Your task to perform on an android device: turn on translation in the chrome app Image 0: 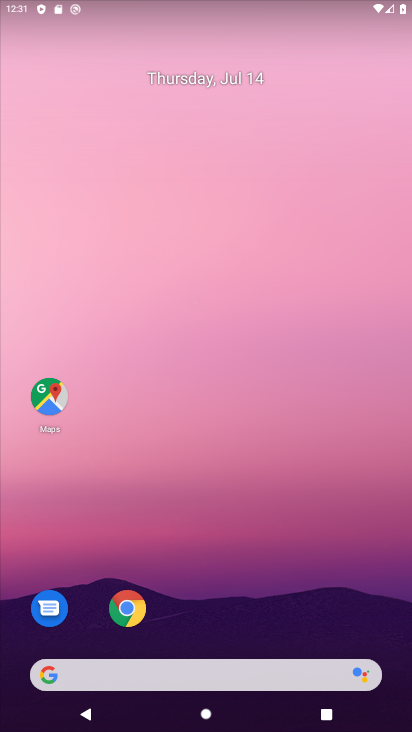
Step 0: drag from (190, 258) to (201, 150)
Your task to perform on an android device: turn on translation in the chrome app Image 1: 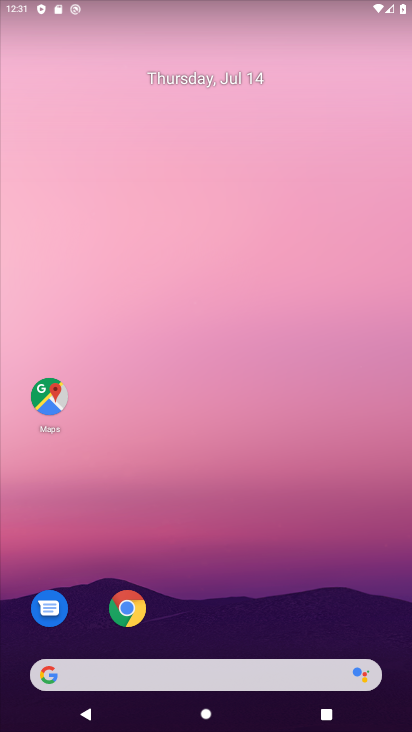
Step 1: drag from (199, 608) to (330, 22)
Your task to perform on an android device: turn on translation in the chrome app Image 2: 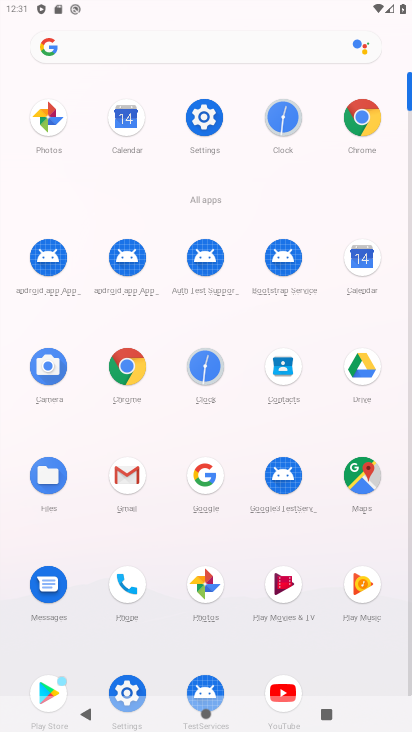
Step 2: click (131, 360)
Your task to perform on an android device: turn on translation in the chrome app Image 3: 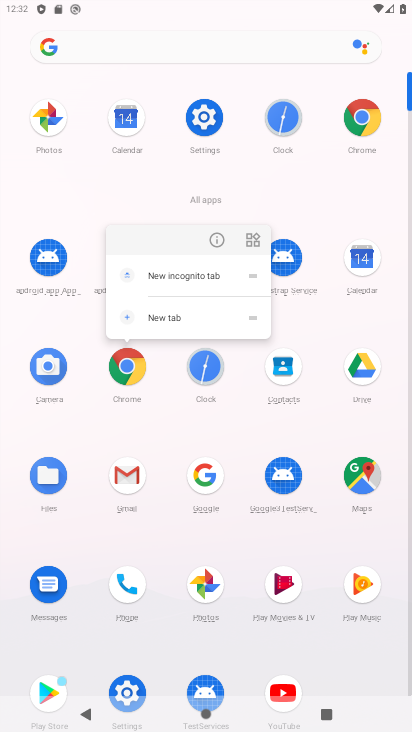
Step 3: click (223, 234)
Your task to perform on an android device: turn on translation in the chrome app Image 4: 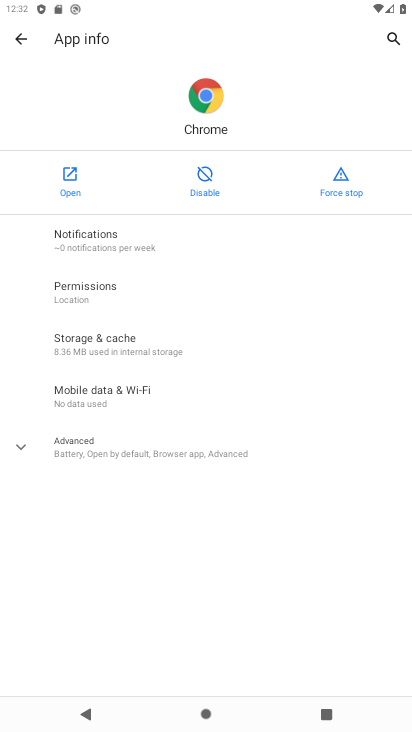
Step 4: click (76, 179)
Your task to perform on an android device: turn on translation in the chrome app Image 5: 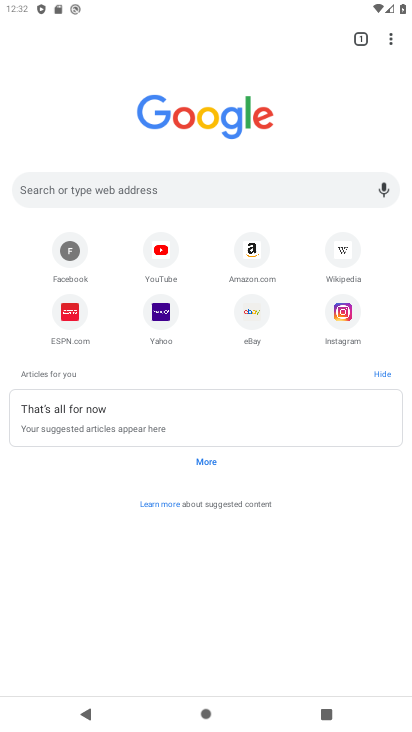
Step 5: drag from (211, 358) to (224, 205)
Your task to perform on an android device: turn on translation in the chrome app Image 6: 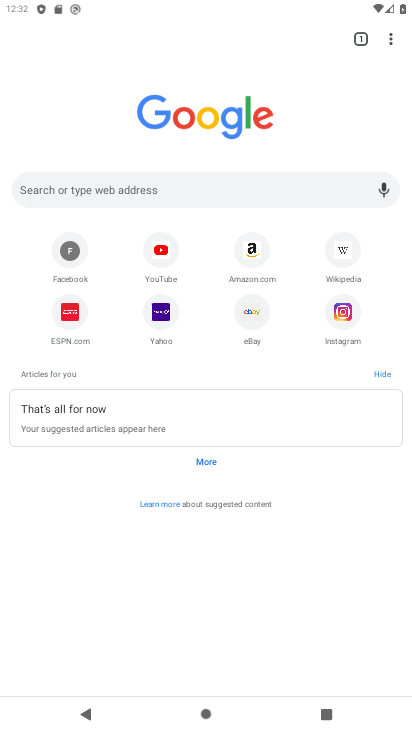
Step 6: drag from (194, 234) to (209, 393)
Your task to perform on an android device: turn on translation in the chrome app Image 7: 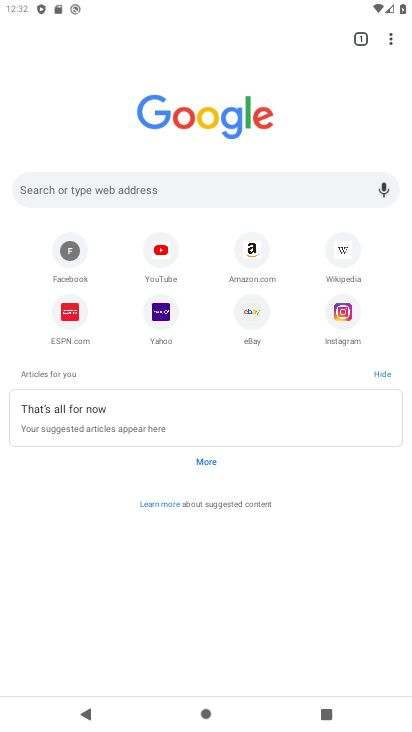
Step 7: drag from (211, 221) to (172, 455)
Your task to perform on an android device: turn on translation in the chrome app Image 8: 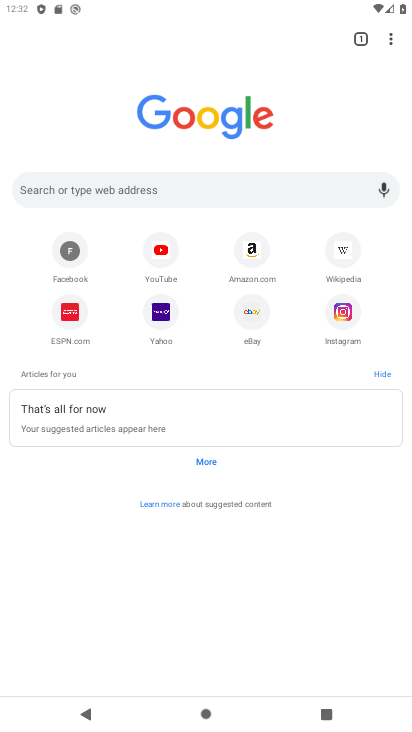
Step 8: drag from (211, 229) to (260, 659)
Your task to perform on an android device: turn on translation in the chrome app Image 9: 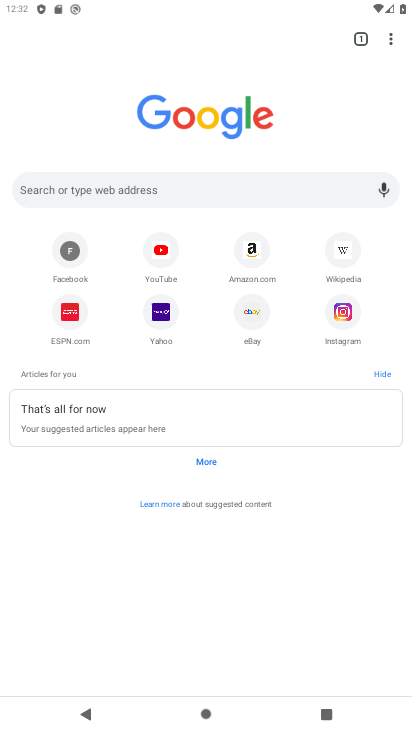
Step 9: click (393, 37)
Your task to perform on an android device: turn on translation in the chrome app Image 10: 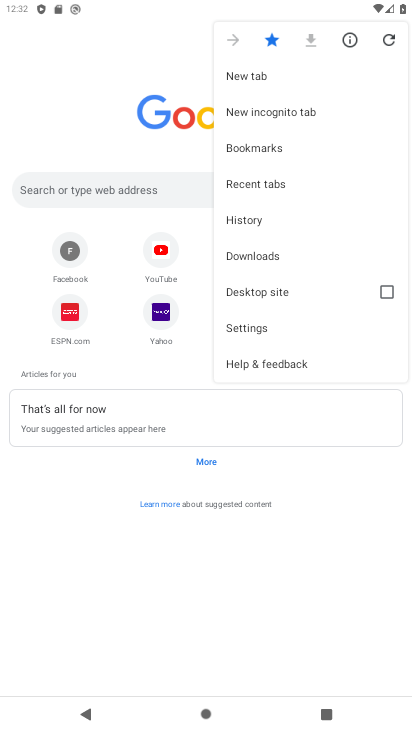
Step 10: click (252, 326)
Your task to perform on an android device: turn on translation in the chrome app Image 11: 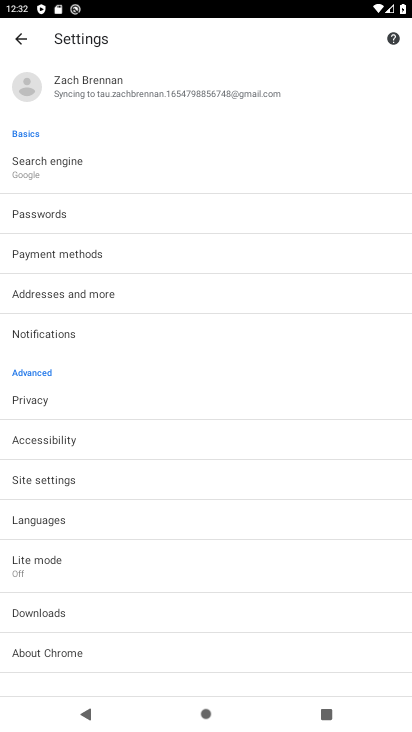
Step 11: drag from (203, 570) to (259, 143)
Your task to perform on an android device: turn on translation in the chrome app Image 12: 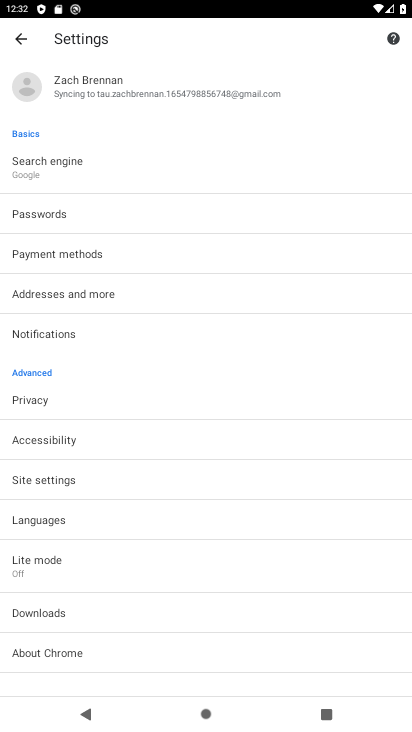
Step 12: drag from (131, 627) to (171, 379)
Your task to perform on an android device: turn on translation in the chrome app Image 13: 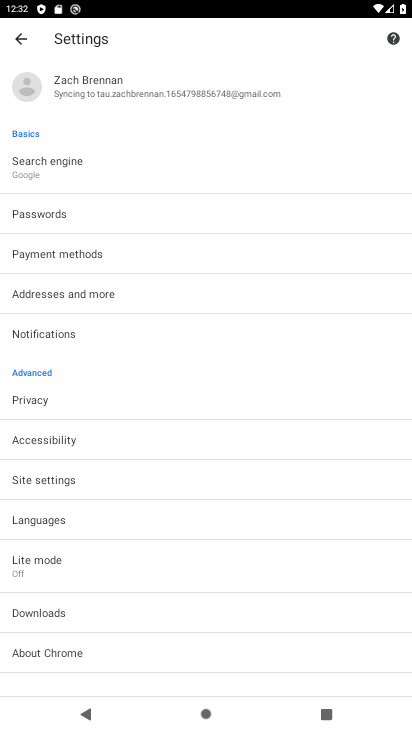
Step 13: click (97, 471)
Your task to perform on an android device: turn on translation in the chrome app Image 14: 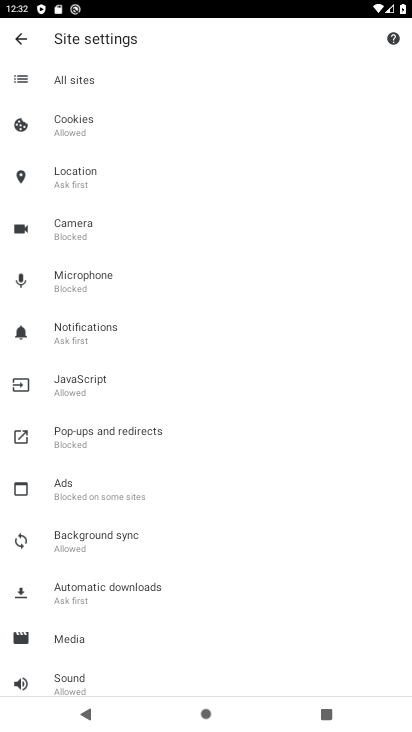
Step 14: click (13, 36)
Your task to perform on an android device: turn on translation in the chrome app Image 15: 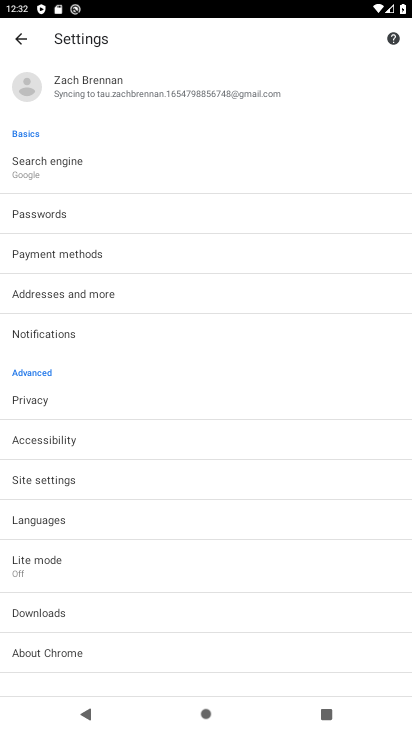
Step 15: drag from (209, 494) to (225, 222)
Your task to perform on an android device: turn on translation in the chrome app Image 16: 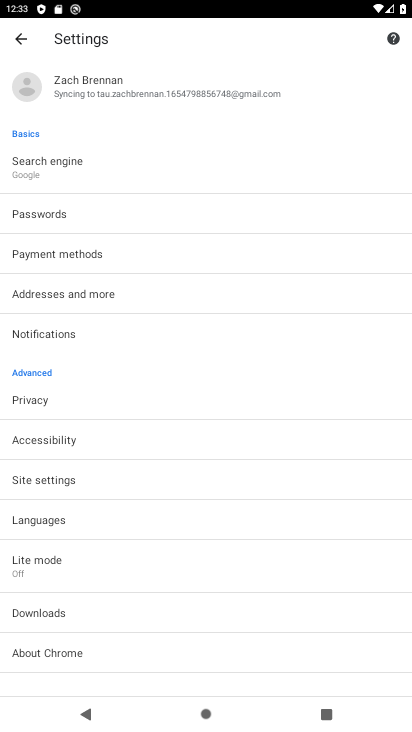
Step 16: drag from (117, 552) to (158, 320)
Your task to perform on an android device: turn on translation in the chrome app Image 17: 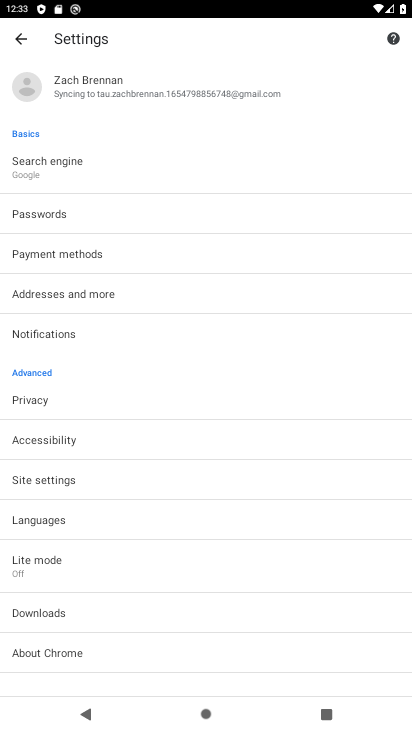
Step 17: drag from (200, 640) to (207, 521)
Your task to perform on an android device: turn on translation in the chrome app Image 18: 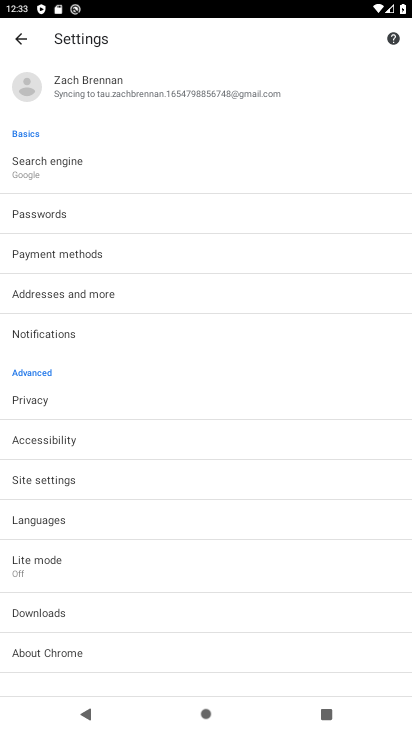
Step 18: drag from (201, 647) to (212, 396)
Your task to perform on an android device: turn on translation in the chrome app Image 19: 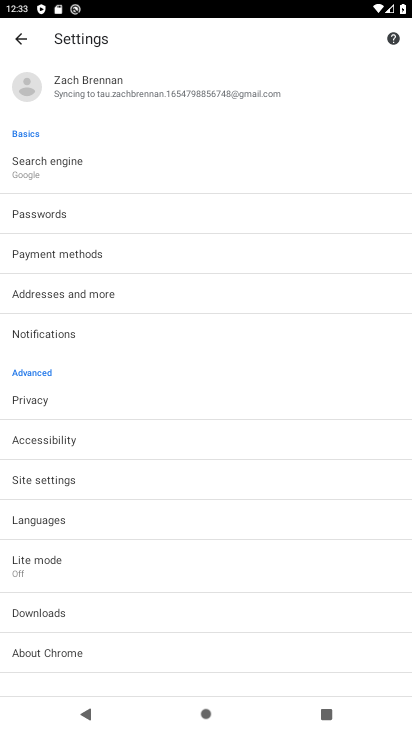
Step 19: drag from (233, 540) to (245, 339)
Your task to perform on an android device: turn on translation in the chrome app Image 20: 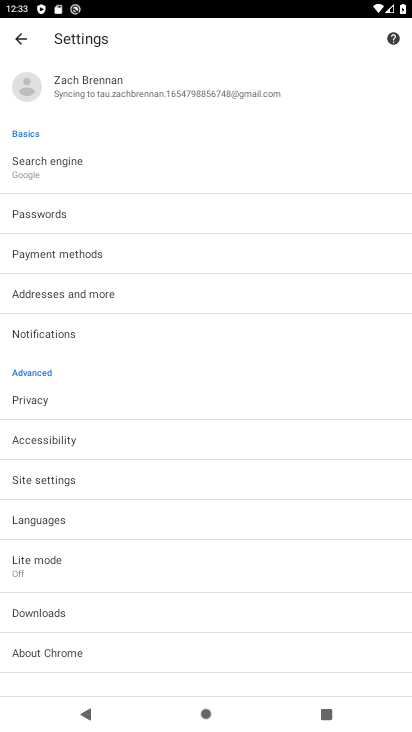
Step 20: click (79, 478)
Your task to perform on an android device: turn on translation in the chrome app Image 21: 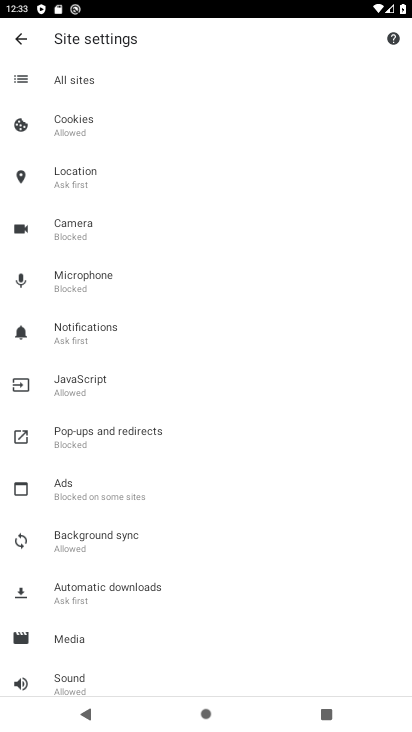
Step 21: drag from (179, 579) to (181, 408)
Your task to perform on an android device: turn on translation in the chrome app Image 22: 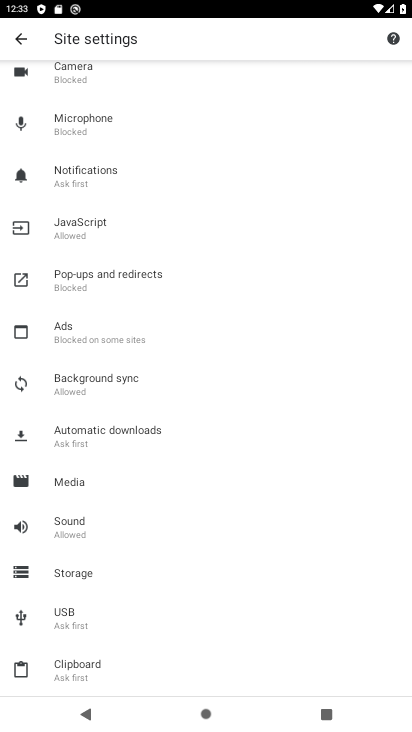
Step 22: drag from (145, 311) to (182, 571)
Your task to perform on an android device: turn on translation in the chrome app Image 23: 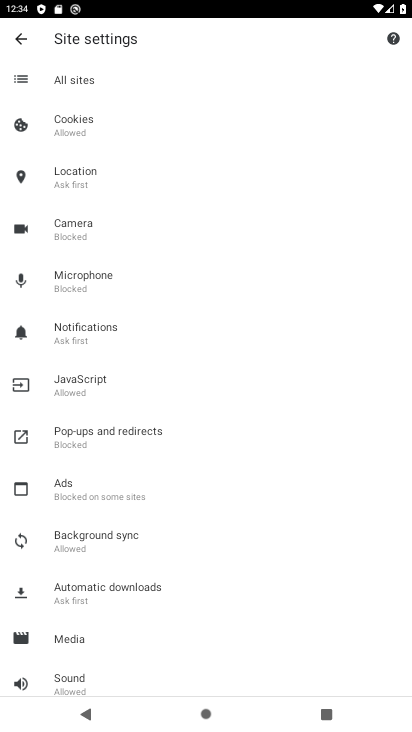
Step 23: drag from (166, 542) to (172, 289)
Your task to perform on an android device: turn on translation in the chrome app Image 24: 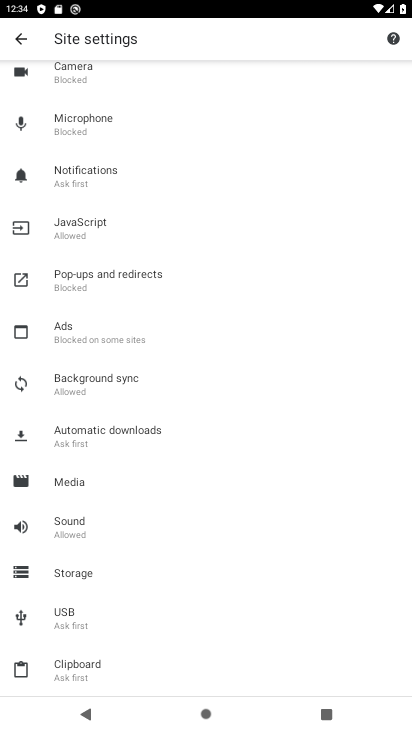
Step 24: drag from (191, 549) to (204, 298)
Your task to perform on an android device: turn on translation in the chrome app Image 25: 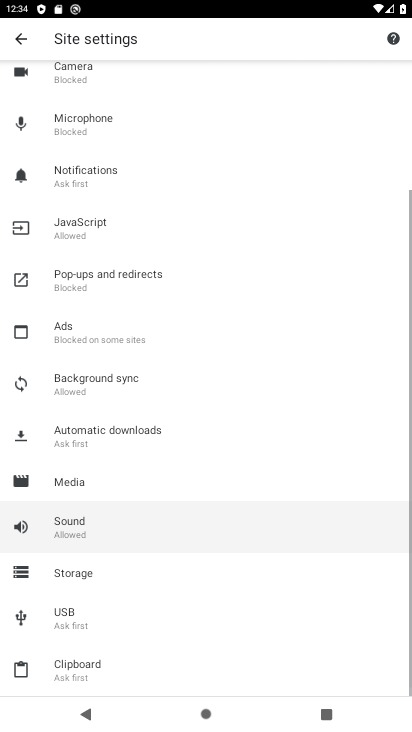
Step 25: drag from (202, 139) to (234, 726)
Your task to perform on an android device: turn on translation in the chrome app Image 26: 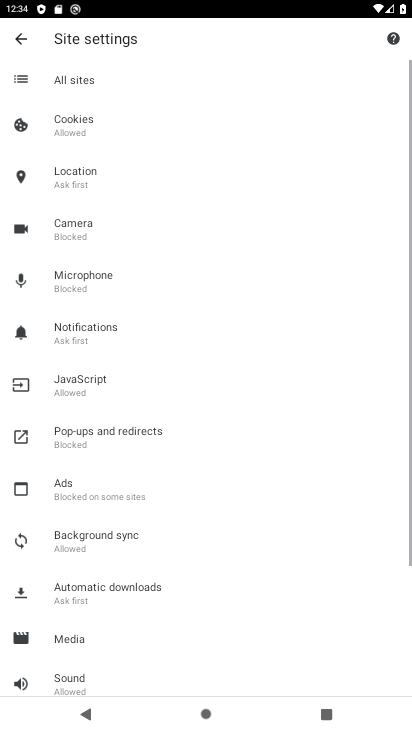
Step 26: drag from (166, 253) to (207, 616)
Your task to perform on an android device: turn on translation in the chrome app Image 27: 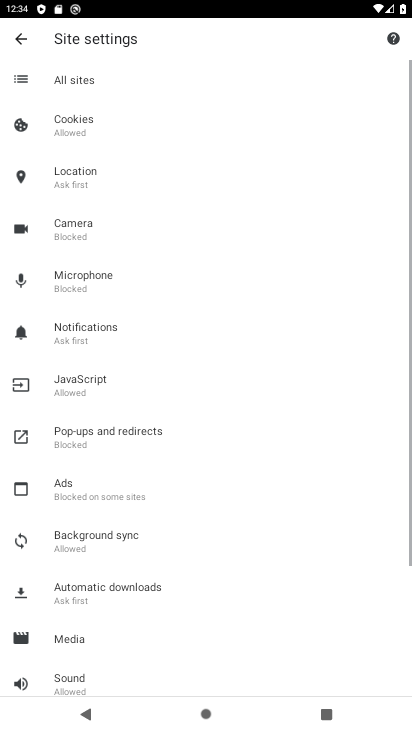
Step 27: drag from (166, 195) to (147, 615)
Your task to perform on an android device: turn on translation in the chrome app Image 28: 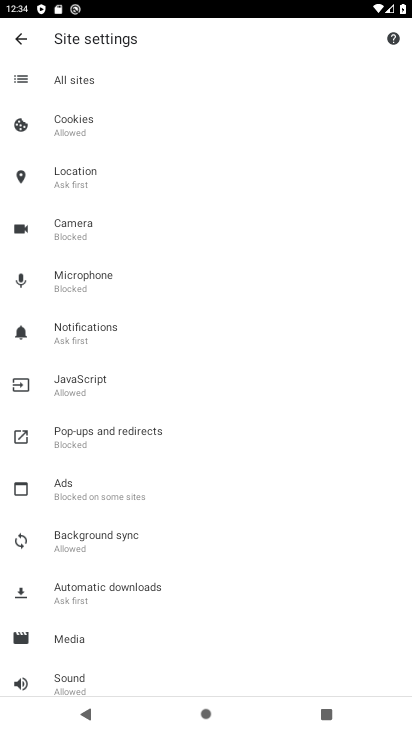
Step 28: drag from (138, 406) to (236, 730)
Your task to perform on an android device: turn on translation in the chrome app Image 29: 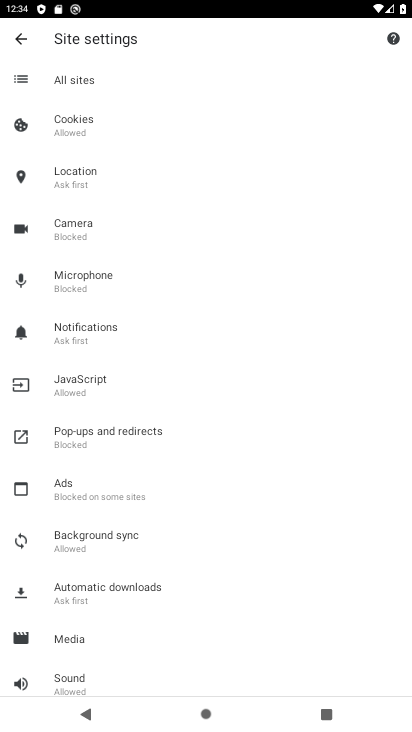
Step 29: drag from (155, 263) to (210, 569)
Your task to perform on an android device: turn on translation in the chrome app Image 30: 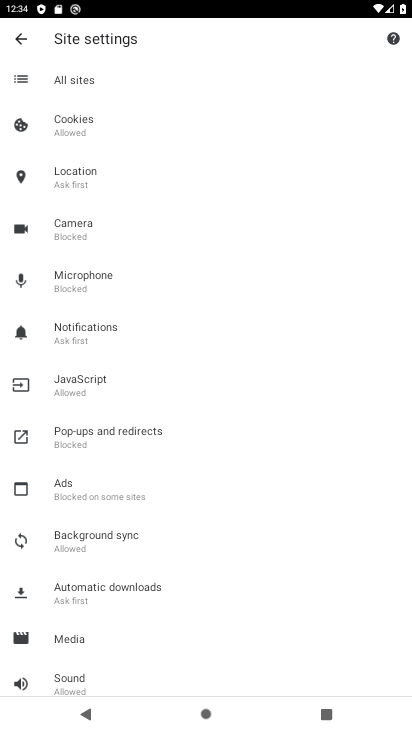
Step 30: drag from (192, 279) to (252, 722)
Your task to perform on an android device: turn on translation in the chrome app Image 31: 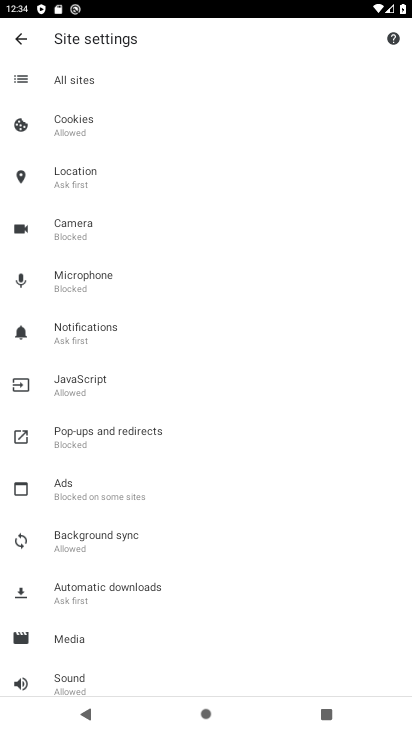
Step 31: drag from (207, 473) to (228, 321)
Your task to perform on an android device: turn on translation in the chrome app Image 32: 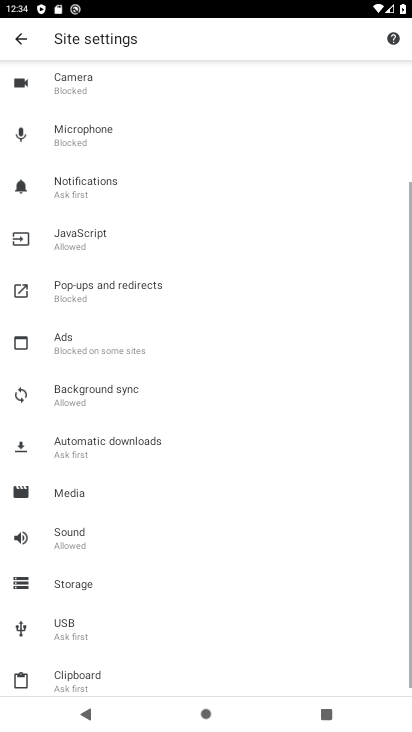
Step 32: drag from (276, 178) to (227, 671)
Your task to perform on an android device: turn on translation in the chrome app Image 33: 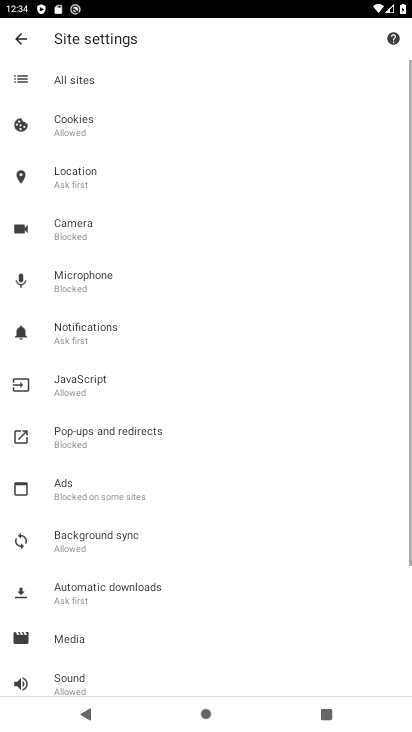
Step 33: drag from (209, 622) to (211, 574)
Your task to perform on an android device: turn on translation in the chrome app Image 34: 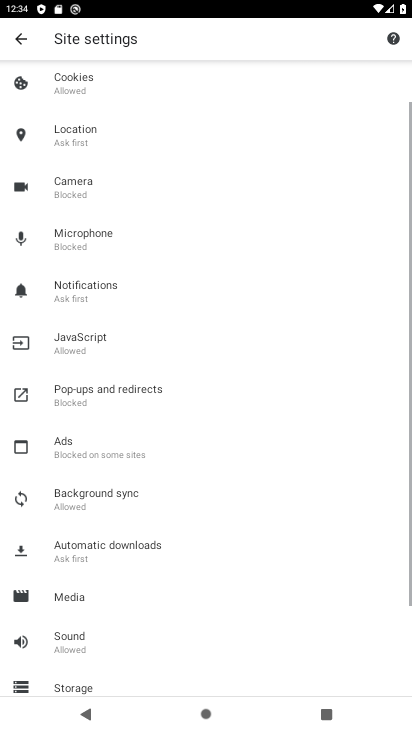
Step 34: drag from (241, 332) to (243, 726)
Your task to perform on an android device: turn on translation in the chrome app Image 35: 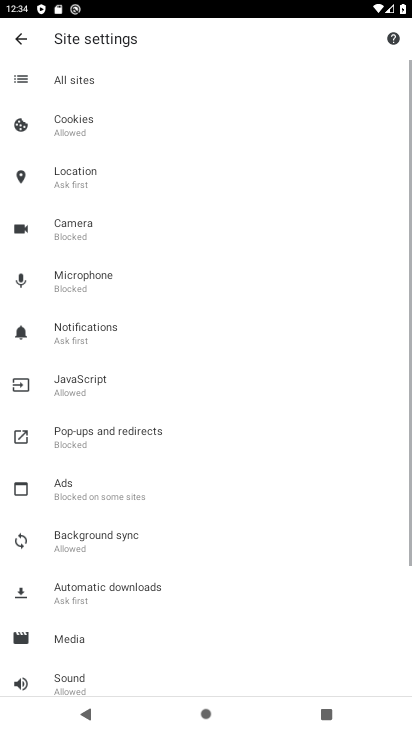
Step 35: drag from (233, 309) to (223, 575)
Your task to perform on an android device: turn on translation in the chrome app Image 36: 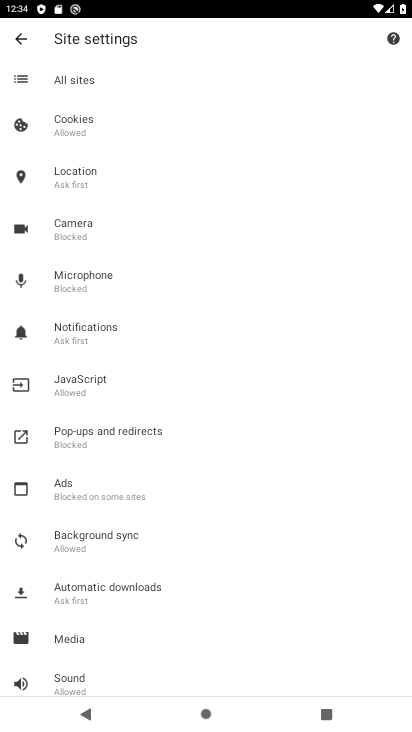
Step 36: drag from (204, 325) to (260, 721)
Your task to perform on an android device: turn on translation in the chrome app Image 37: 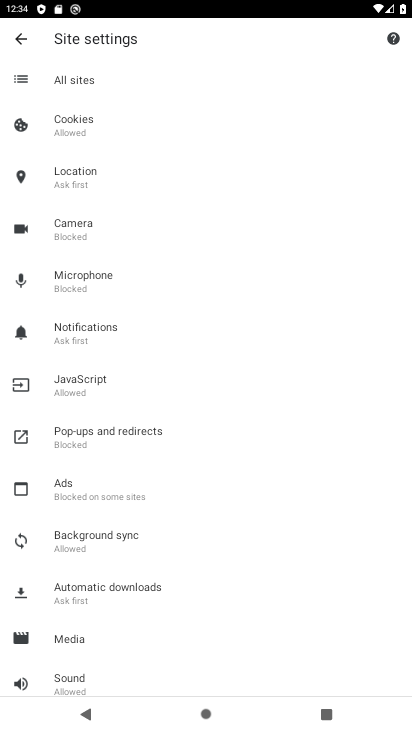
Step 37: drag from (154, 589) to (212, 255)
Your task to perform on an android device: turn on translation in the chrome app Image 38: 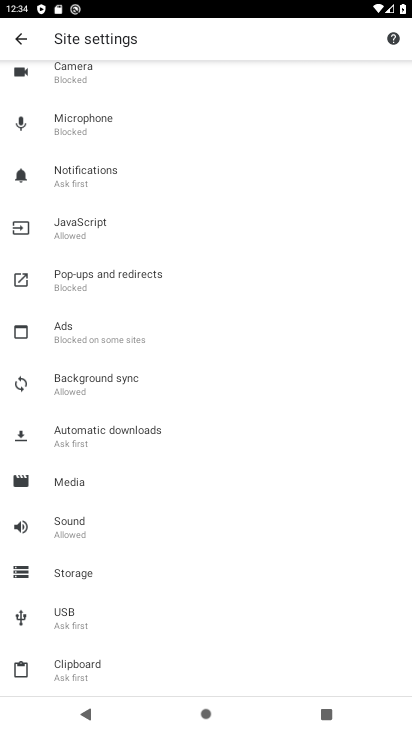
Step 38: drag from (173, 433) to (211, 699)
Your task to perform on an android device: turn on translation in the chrome app Image 39: 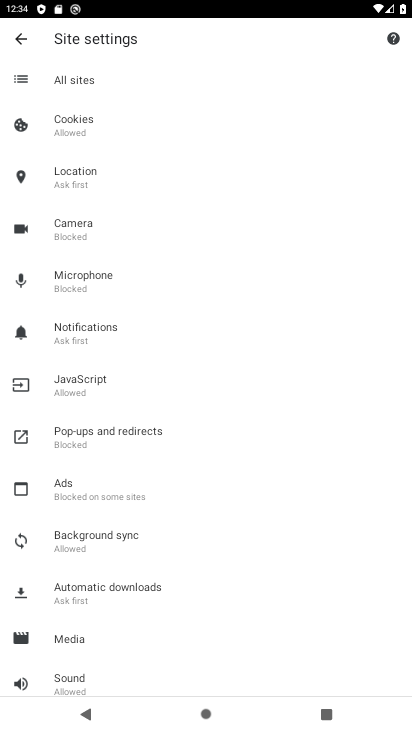
Step 39: drag from (172, 540) to (165, 303)
Your task to perform on an android device: turn on translation in the chrome app Image 40: 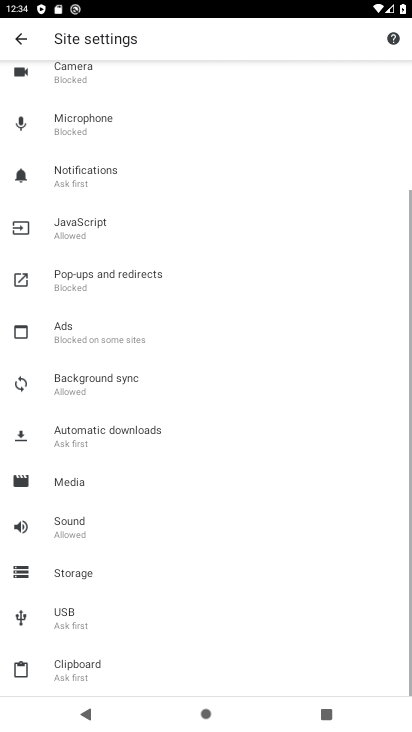
Step 40: click (22, 42)
Your task to perform on an android device: turn on translation in the chrome app Image 41: 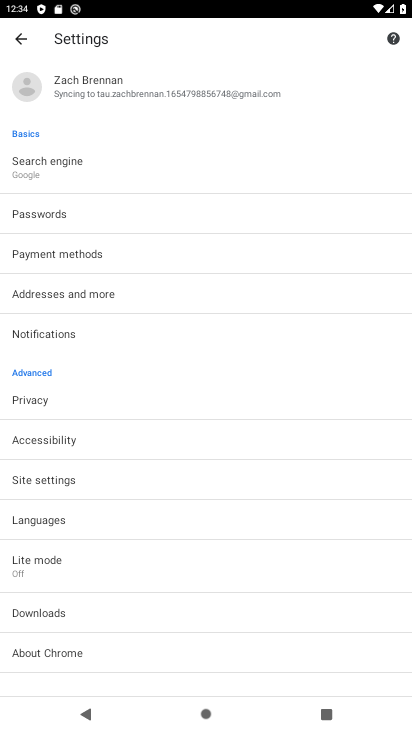
Step 41: drag from (201, 567) to (201, 339)
Your task to perform on an android device: turn on translation in the chrome app Image 42: 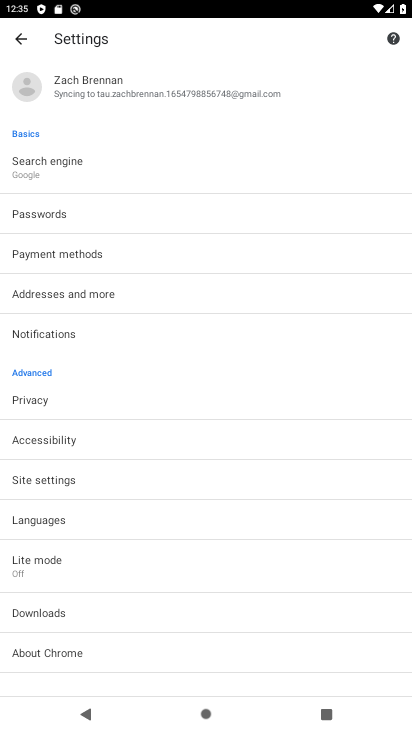
Step 42: drag from (181, 599) to (181, 347)
Your task to perform on an android device: turn on translation in the chrome app Image 43: 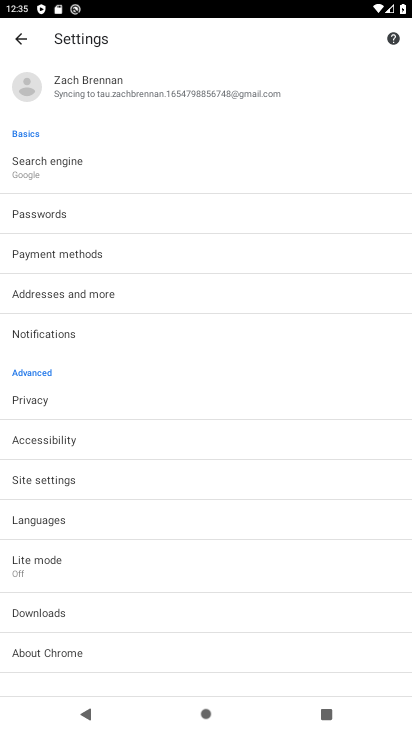
Step 43: drag from (197, 111) to (205, 601)
Your task to perform on an android device: turn on translation in the chrome app Image 44: 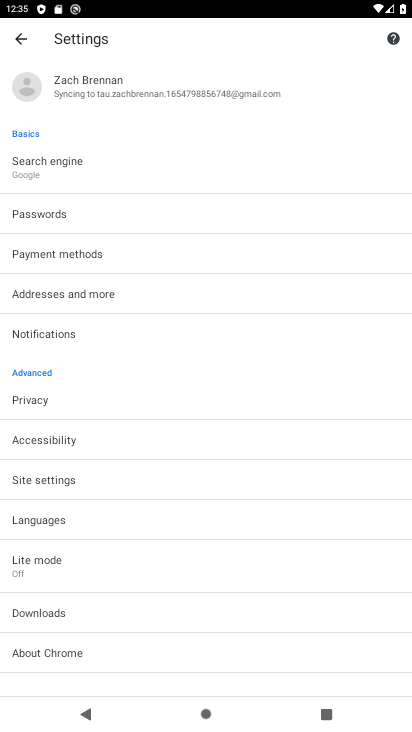
Step 44: drag from (169, 287) to (280, 726)
Your task to perform on an android device: turn on translation in the chrome app Image 45: 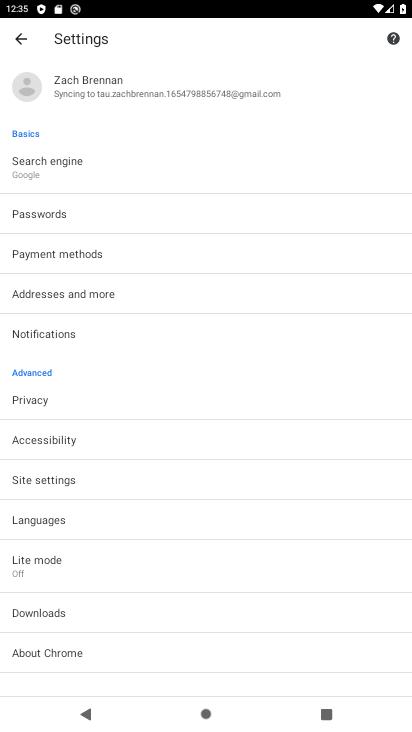
Step 45: drag from (173, 579) to (173, 423)
Your task to perform on an android device: turn on translation in the chrome app Image 46: 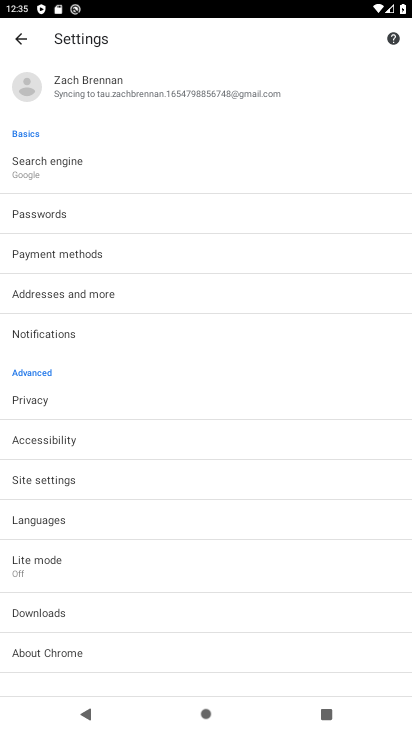
Step 46: click (73, 520)
Your task to perform on an android device: turn on translation in the chrome app Image 47: 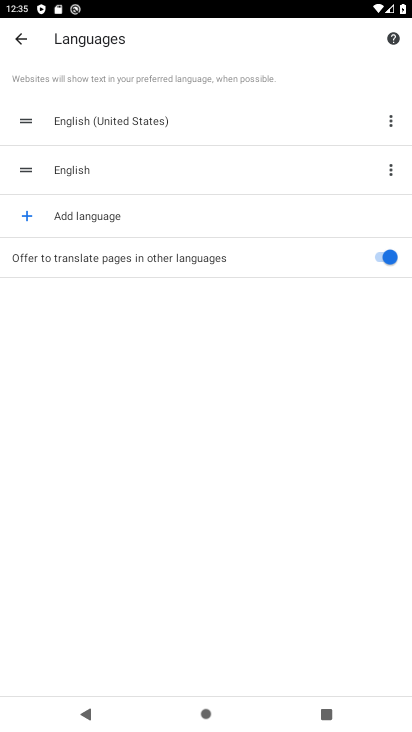
Step 47: task complete